Your task to perform on an android device: turn off smart reply in the gmail app Image 0: 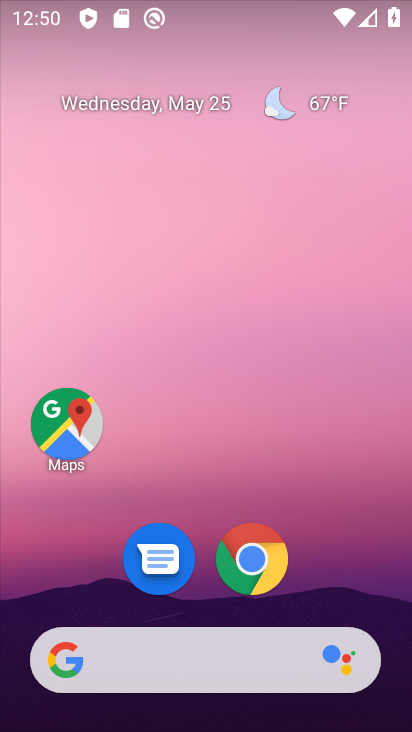
Step 0: drag from (63, 616) to (175, 141)
Your task to perform on an android device: turn off smart reply in the gmail app Image 1: 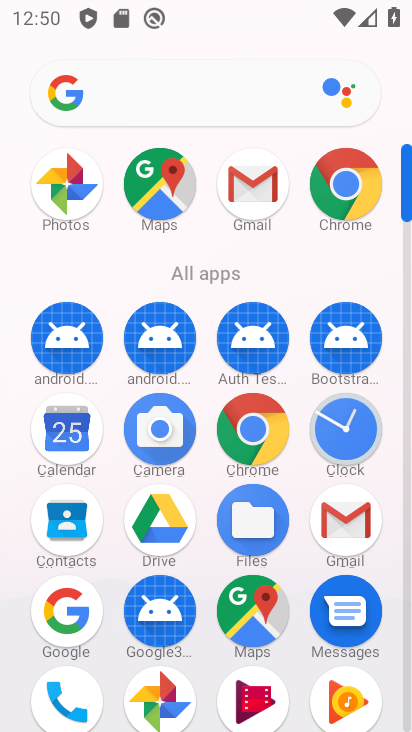
Step 1: drag from (205, 591) to (264, 258)
Your task to perform on an android device: turn off smart reply in the gmail app Image 2: 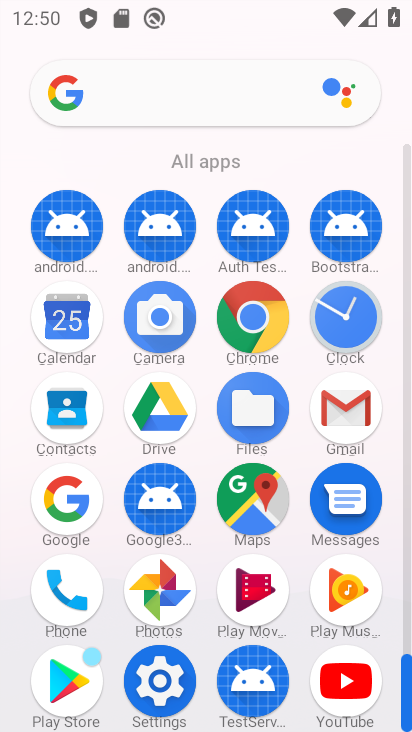
Step 2: click (332, 416)
Your task to perform on an android device: turn off smart reply in the gmail app Image 3: 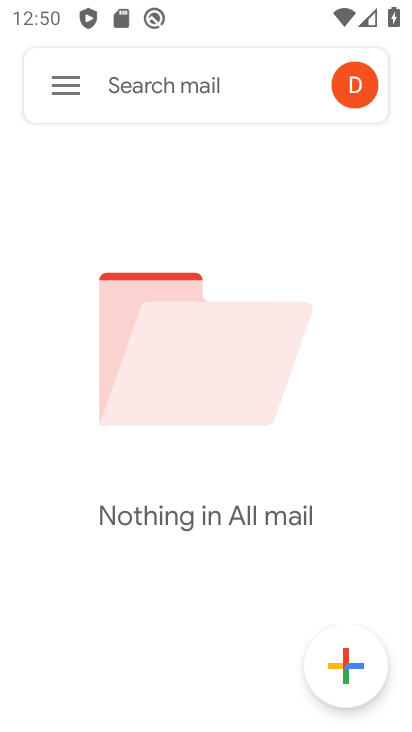
Step 3: click (49, 99)
Your task to perform on an android device: turn off smart reply in the gmail app Image 4: 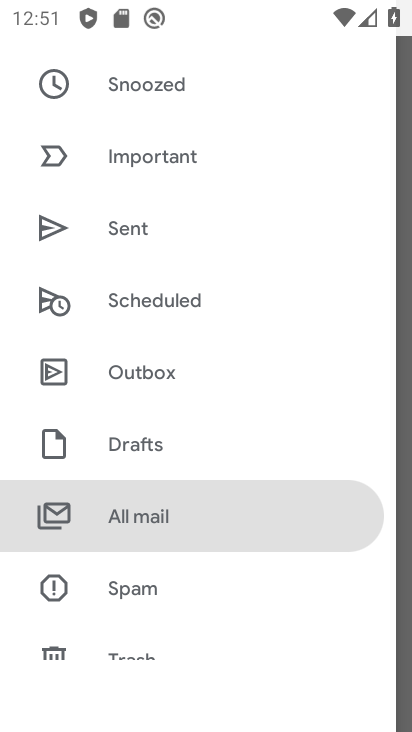
Step 4: drag from (81, 644) to (256, 174)
Your task to perform on an android device: turn off smart reply in the gmail app Image 5: 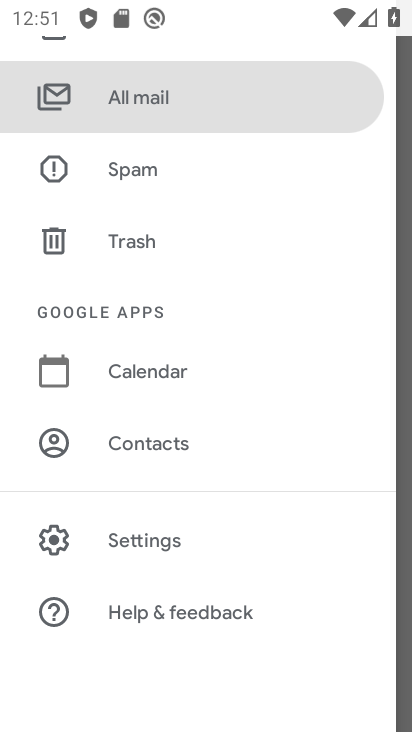
Step 5: click (175, 550)
Your task to perform on an android device: turn off smart reply in the gmail app Image 6: 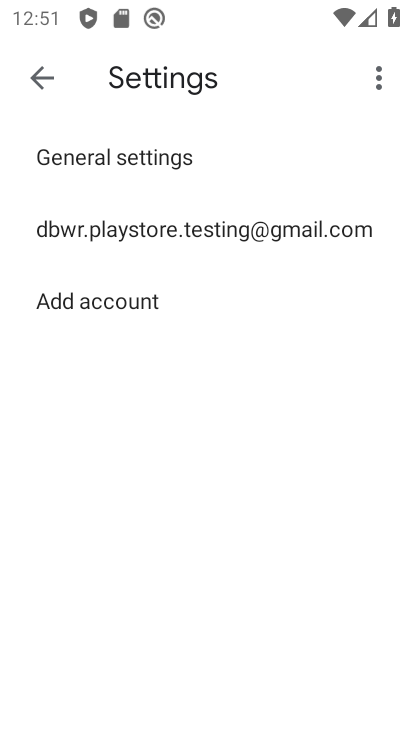
Step 6: click (208, 220)
Your task to perform on an android device: turn off smart reply in the gmail app Image 7: 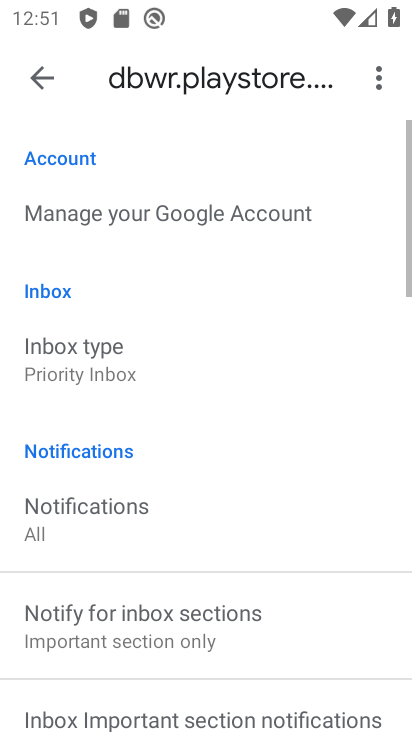
Step 7: drag from (198, 664) to (298, 197)
Your task to perform on an android device: turn off smart reply in the gmail app Image 8: 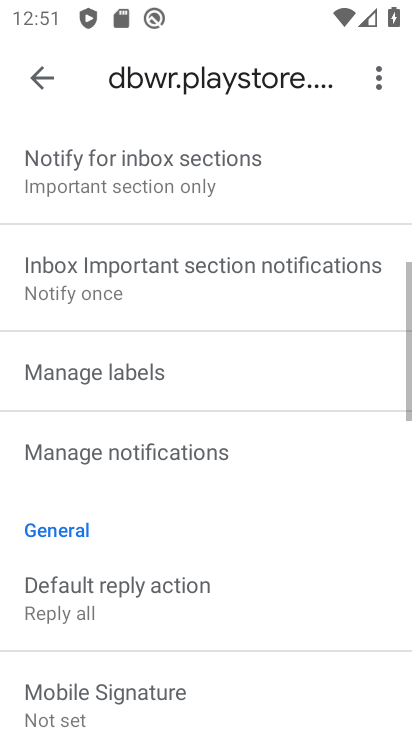
Step 8: drag from (201, 532) to (268, 187)
Your task to perform on an android device: turn off smart reply in the gmail app Image 9: 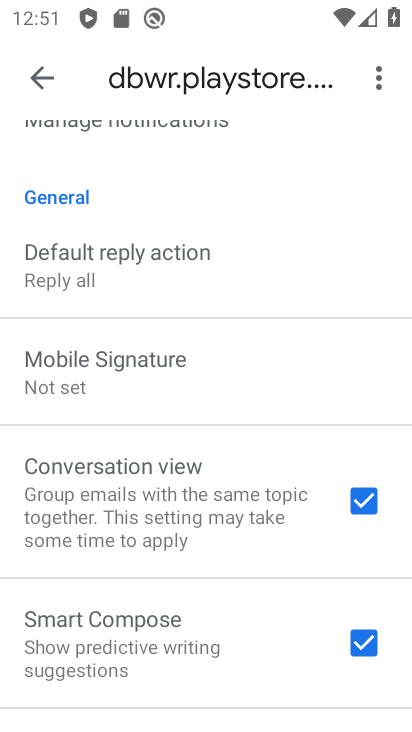
Step 9: drag from (177, 568) to (230, 271)
Your task to perform on an android device: turn off smart reply in the gmail app Image 10: 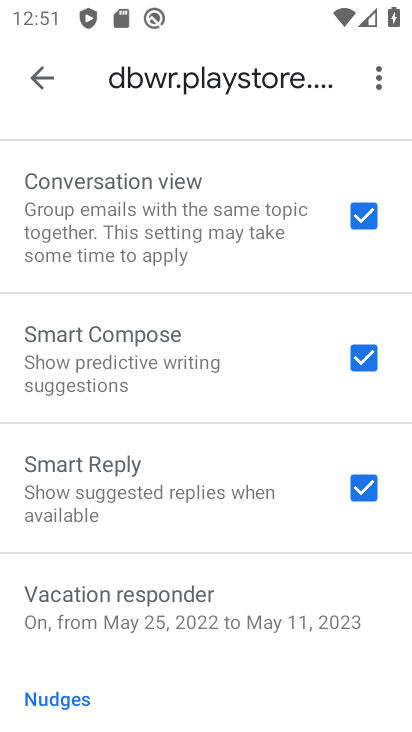
Step 10: click (345, 486)
Your task to perform on an android device: turn off smart reply in the gmail app Image 11: 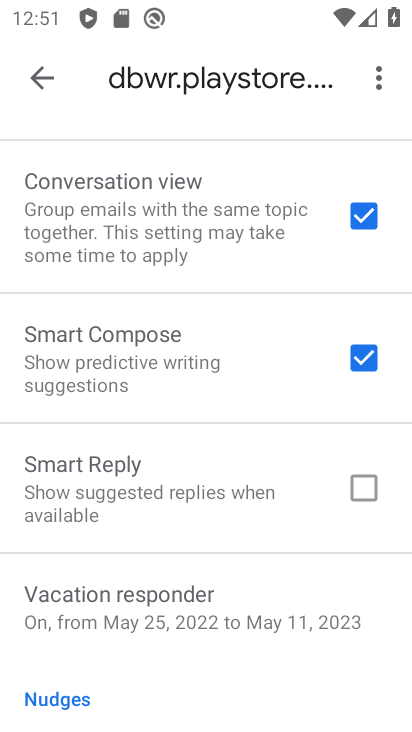
Step 11: task complete